Your task to perform on an android device: What's the weather? Image 0: 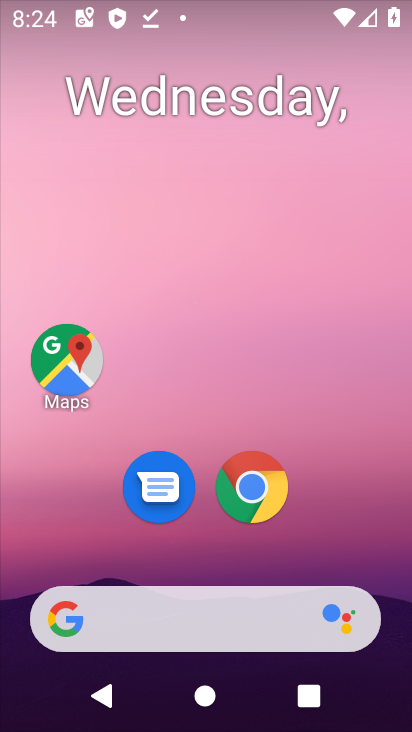
Step 0: drag from (8, 182) to (393, 550)
Your task to perform on an android device: What's the weather? Image 1: 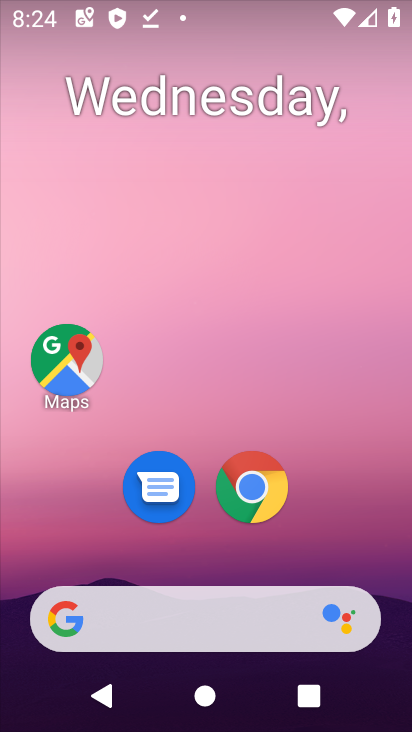
Step 1: drag from (357, 397) to (399, 485)
Your task to perform on an android device: What's the weather? Image 2: 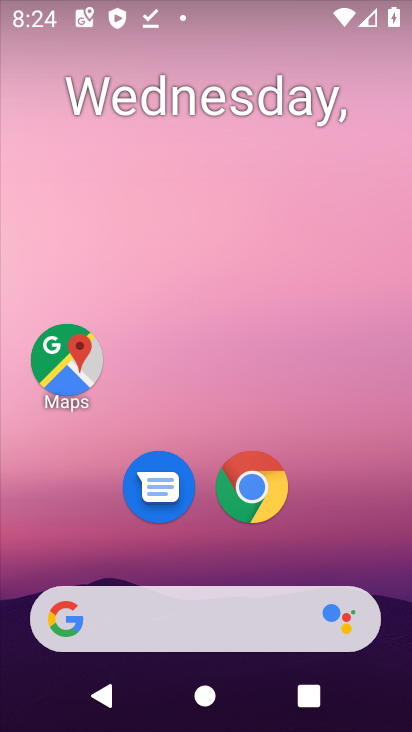
Step 2: drag from (24, 205) to (364, 304)
Your task to perform on an android device: What's the weather? Image 3: 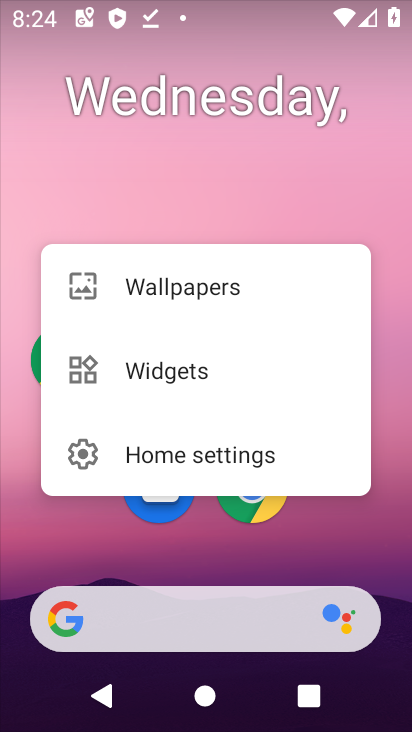
Step 3: drag from (24, 220) to (405, 413)
Your task to perform on an android device: What's the weather? Image 4: 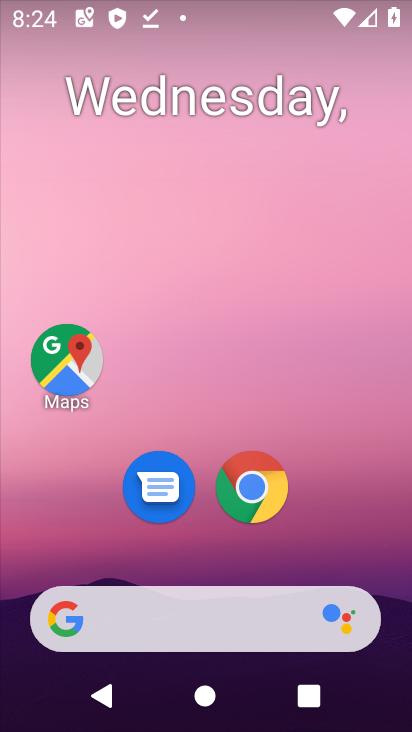
Step 4: click (144, 166)
Your task to perform on an android device: What's the weather? Image 5: 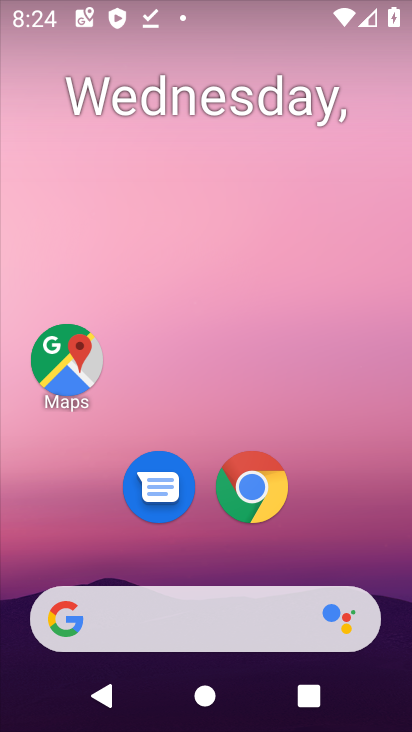
Step 5: drag from (2, 184) to (387, 464)
Your task to perform on an android device: What's the weather? Image 6: 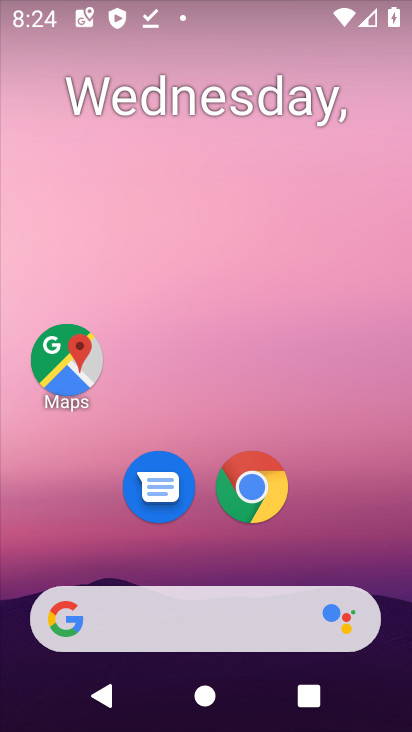
Step 6: drag from (2, 198) to (359, 443)
Your task to perform on an android device: What's the weather? Image 7: 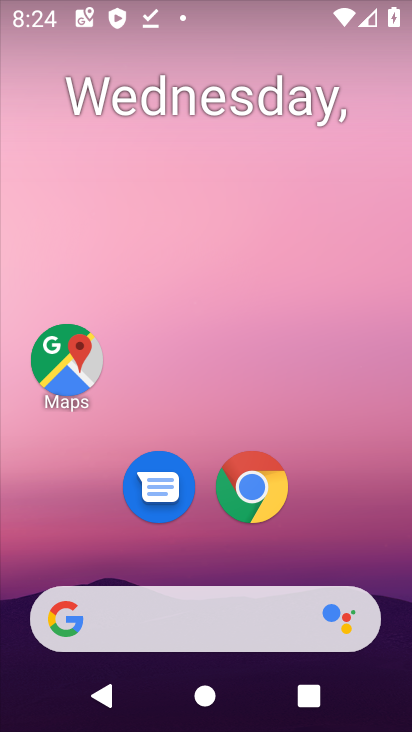
Step 7: drag from (3, 190) to (348, 303)
Your task to perform on an android device: What's the weather? Image 8: 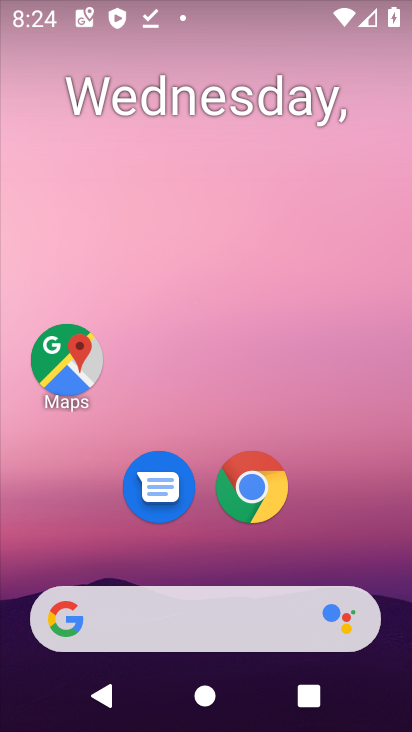
Step 8: drag from (22, 202) to (379, 340)
Your task to perform on an android device: What's the weather? Image 9: 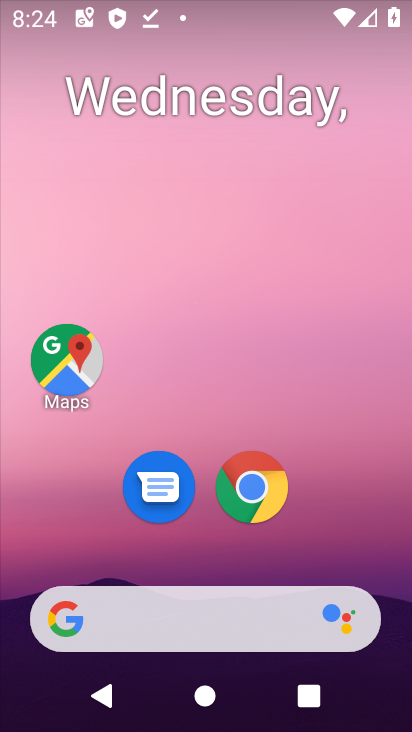
Step 9: drag from (78, 224) to (327, 364)
Your task to perform on an android device: What's the weather? Image 10: 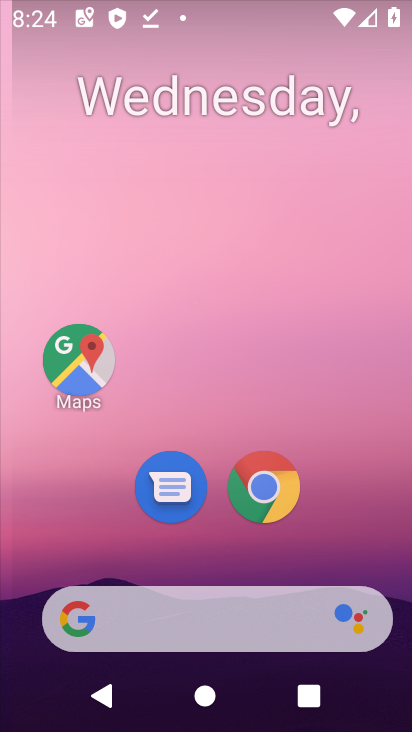
Step 10: drag from (17, 192) to (362, 416)
Your task to perform on an android device: What's the weather? Image 11: 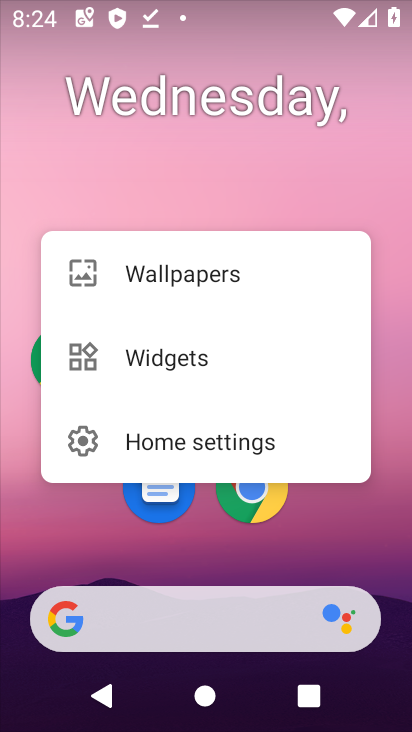
Step 11: drag from (368, 397) to (392, 365)
Your task to perform on an android device: What's the weather? Image 12: 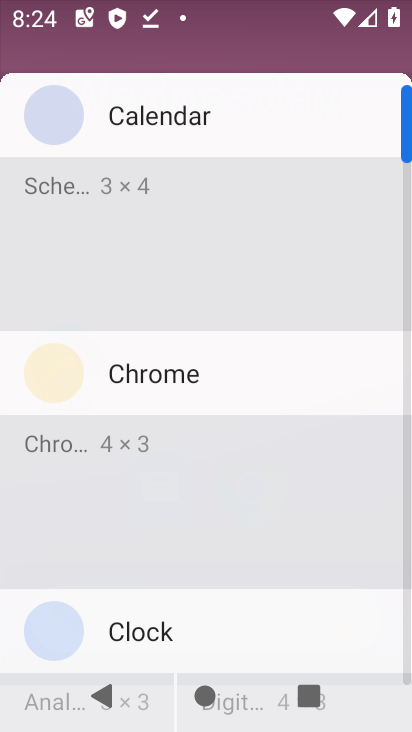
Step 12: click (188, 187)
Your task to perform on an android device: What's the weather? Image 13: 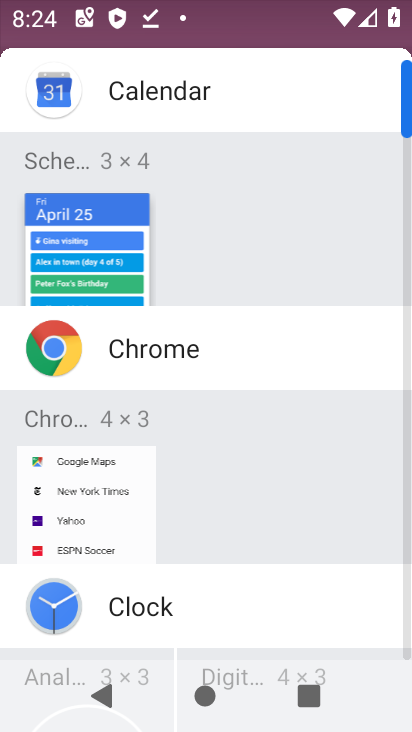
Step 13: press back button
Your task to perform on an android device: What's the weather? Image 14: 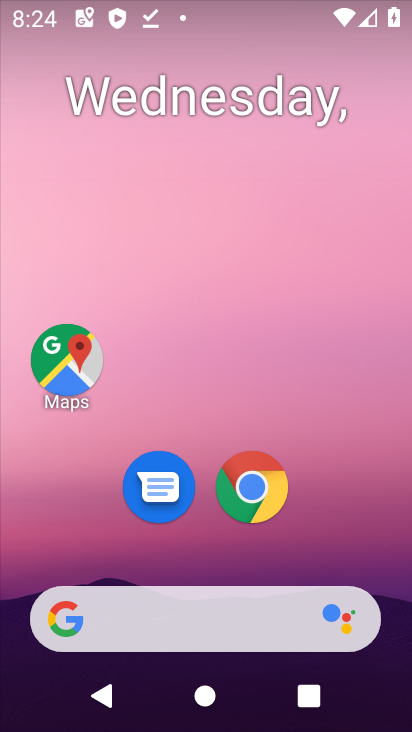
Step 14: drag from (16, 151) to (358, 334)
Your task to perform on an android device: What's the weather? Image 15: 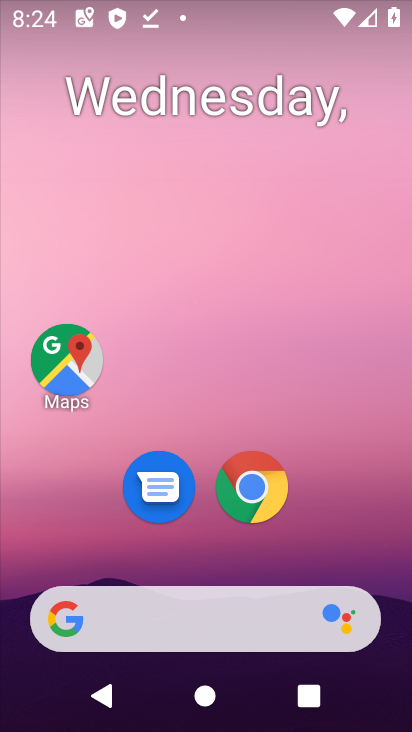
Step 15: drag from (5, 196) to (380, 277)
Your task to perform on an android device: What's the weather? Image 16: 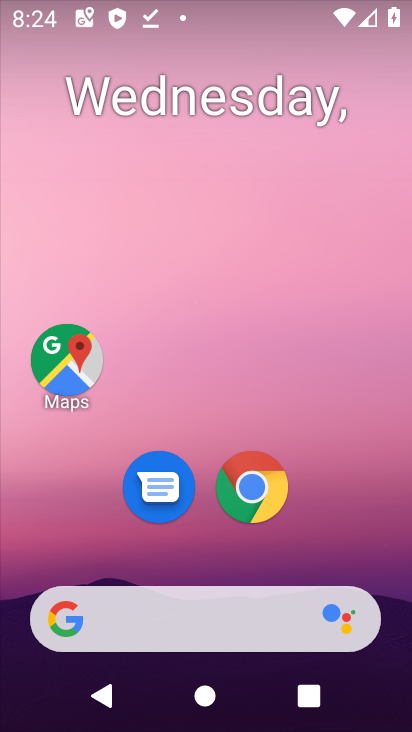
Step 16: drag from (4, 163) to (351, 378)
Your task to perform on an android device: What's the weather? Image 17: 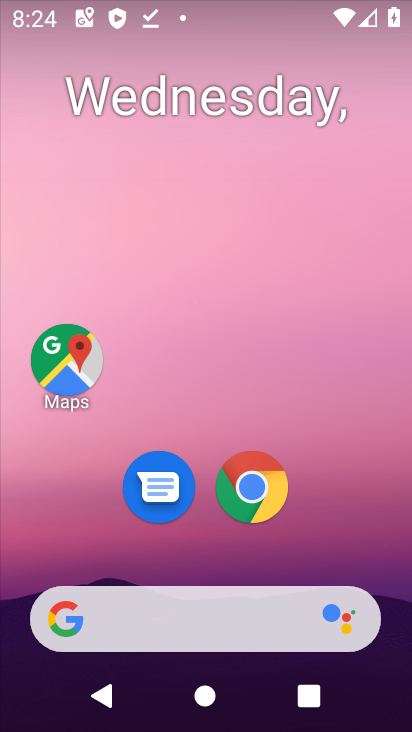
Step 17: drag from (21, 182) to (370, 290)
Your task to perform on an android device: What's the weather? Image 18: 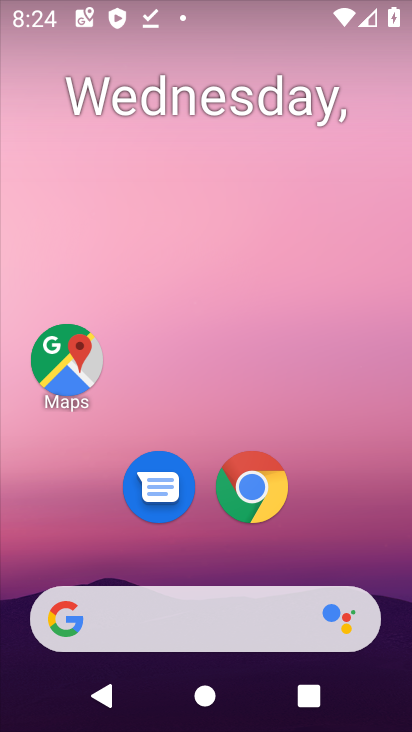
Step 18: drag from (7, 163) to (314, 325)
Your task to perform on an android device: What's the weather? Image 19: 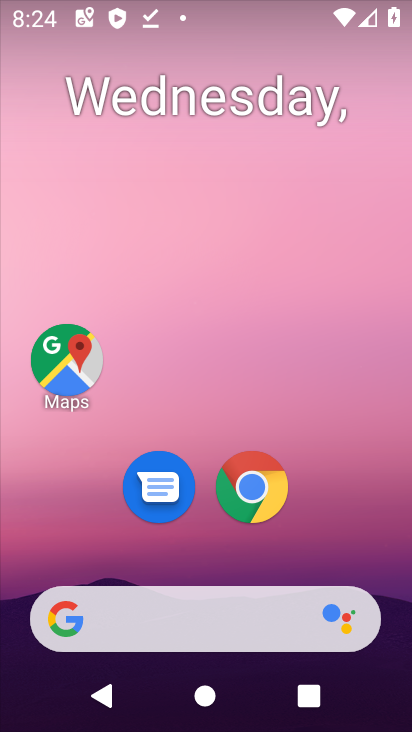
Step 19: drag from (195, 294) to (387, 299)
Your task to perform on an android device: What's the weather? Image 20: 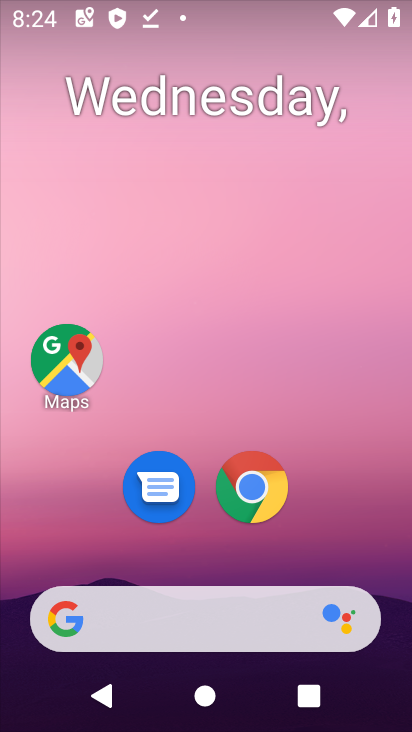
Step 20: drag from (197, 347) to (305, 368)
Your task to perform on an android device: What's the weather? Image 21: 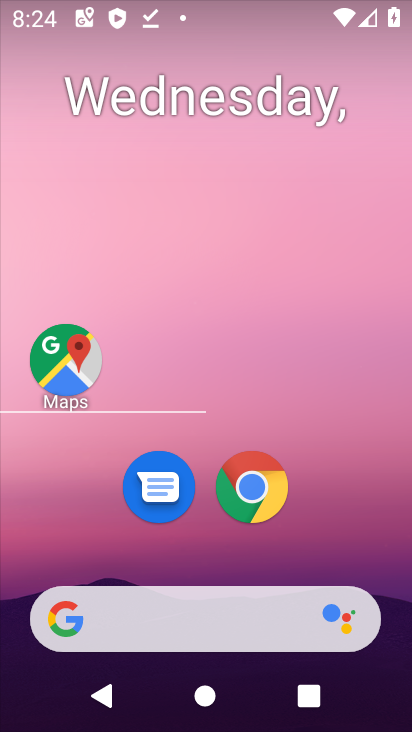
Step 21: drag from (5, 167) to (404, 389)
Your task to perform on an android device: What's the weather? Image 22: 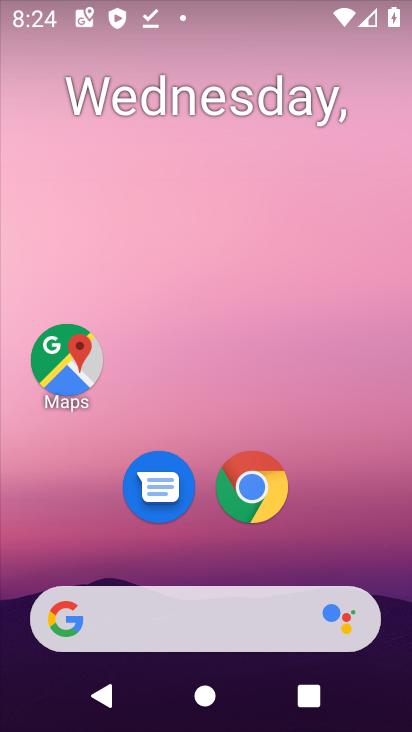
Step 22: drag from (0, 226) to (404, 391)
Your task to perform on an android device: What's the weather? Image 23: 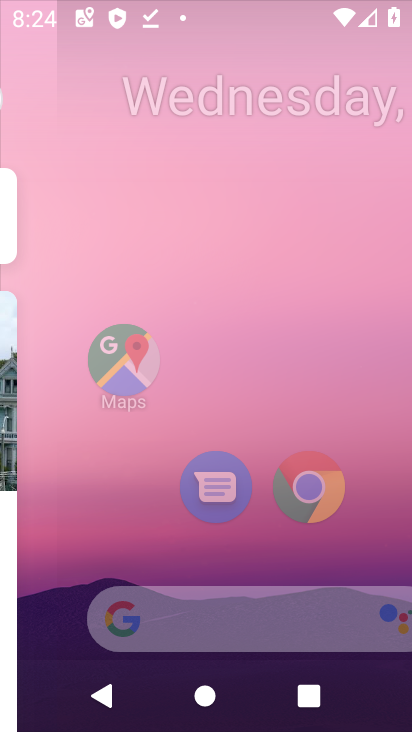
Step 23: drag from (26, 191) to (363, 323)
Your task to perform on an android device: What's the weather? Image 24: 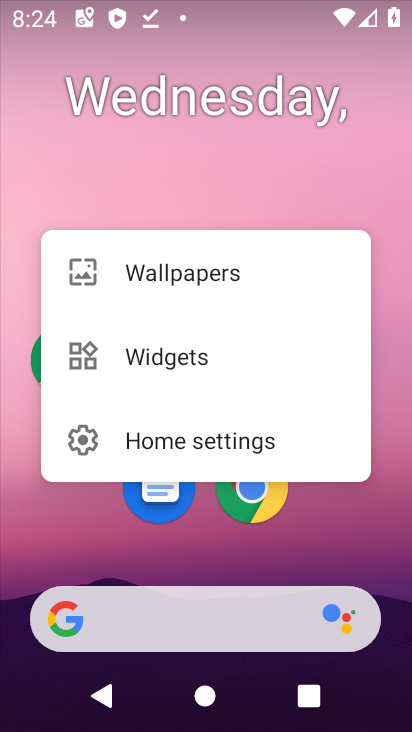
Step 24: drag from (19, 220) to (372, 280)
Your task to perform on an android device: What's the weather? Image 25: 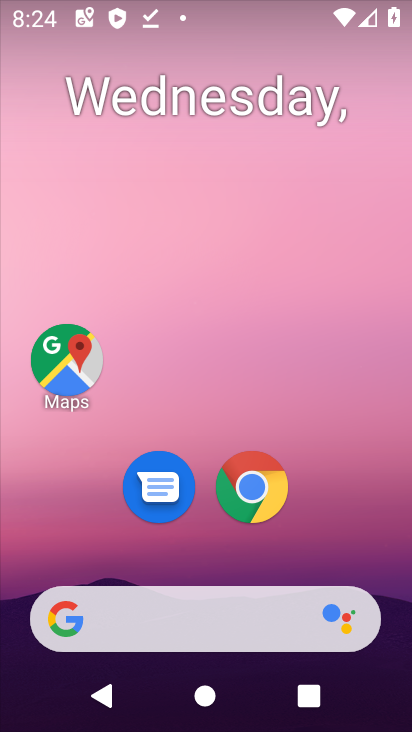
Step 25: click (220, 147)
Your task to perform on an android device: What's the weather? Image 26: 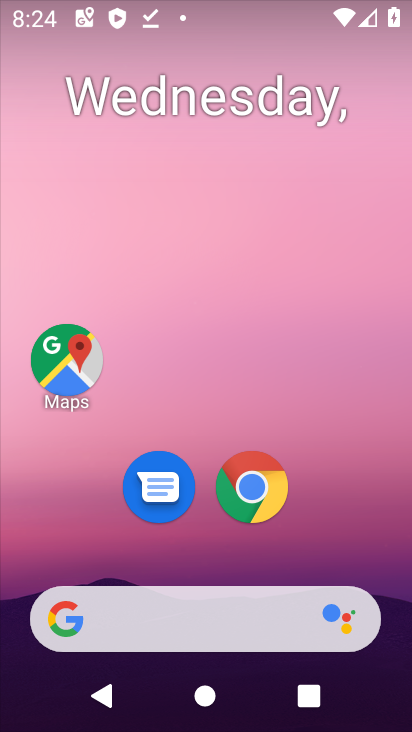
Step 26: click (220, 147)
Your task to perform on an android device: What's the weather? Image 27: 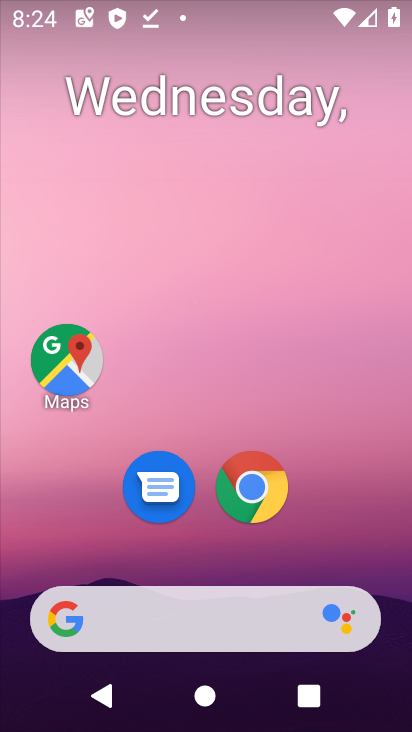
Step 27: drag from (11, 194) to (394, 295)
Your task to perform on an android device: What's the weather? Image 28: 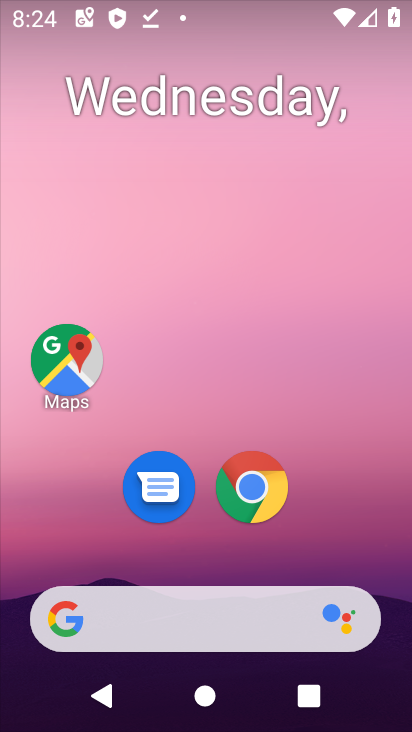
Step 28: drag from (2, 152) to (402, 455)
Your task to perform on an android device: What's the weather? Image 29: 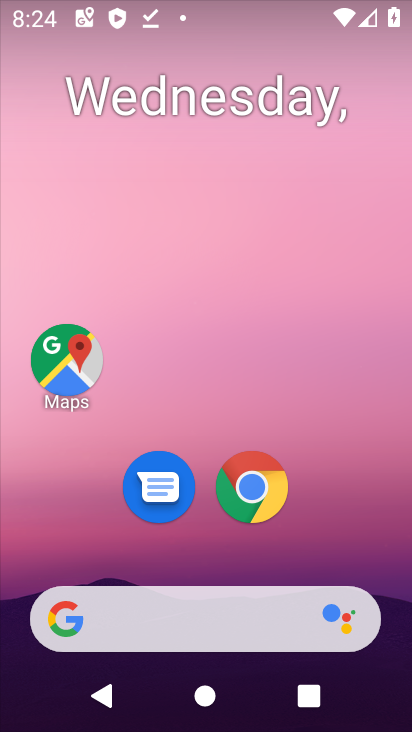
Step 29: drag from (240, 329) to (346, 416)
Your task to perform on an android device: What's the weather? Image 30: 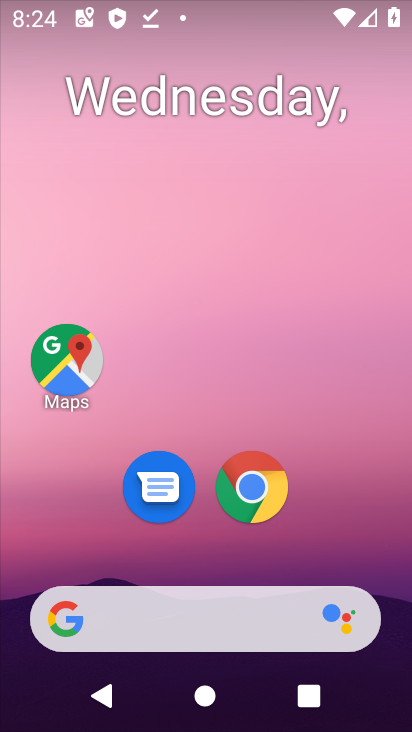
Step 30: drag from (0, 157) to (404, 441)
Your task to perform on an android device: What's the weather? Image 31: 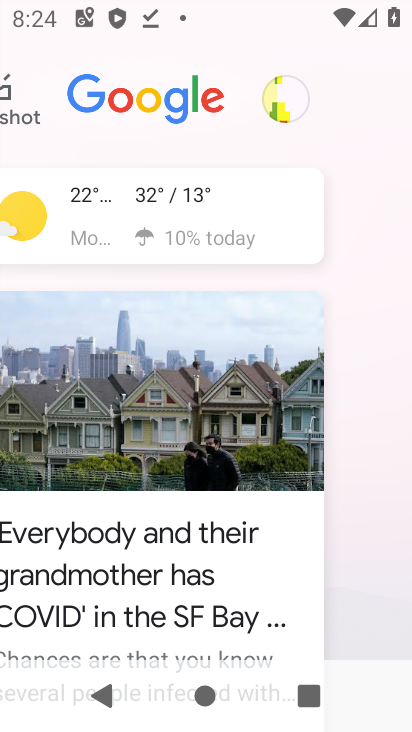
Step 31: drag from (27, 161) to (368, 691)
Your task to perform on an android device: What's the weather? Image 32: 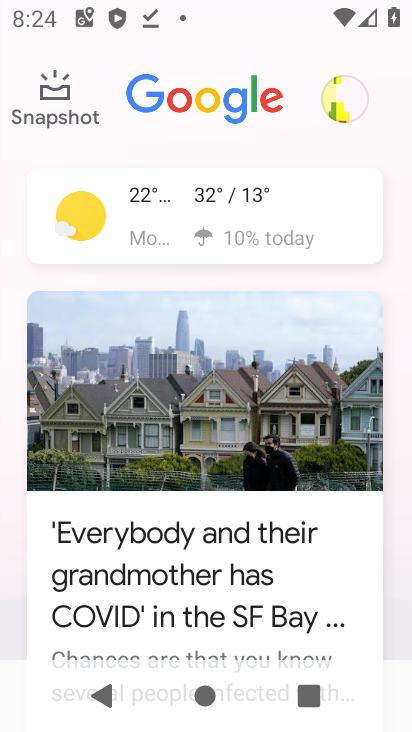
Step 32: click (195, 204)
Your task to perform on an android device: What's the weather? Image 33: 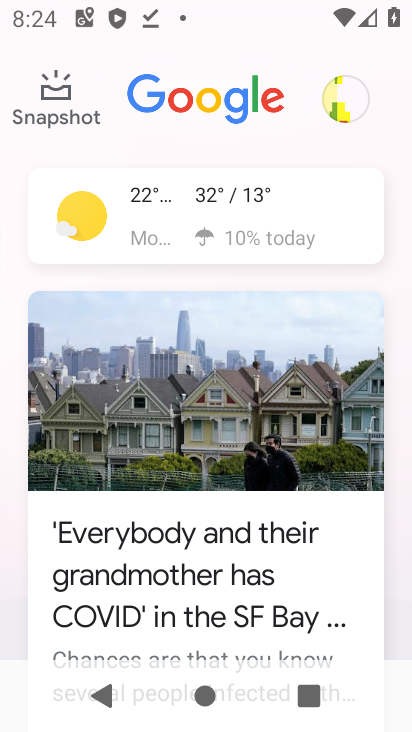
Step 33: click (197, 203)
Your task to perform on an android device: What's the weather? Image 34: 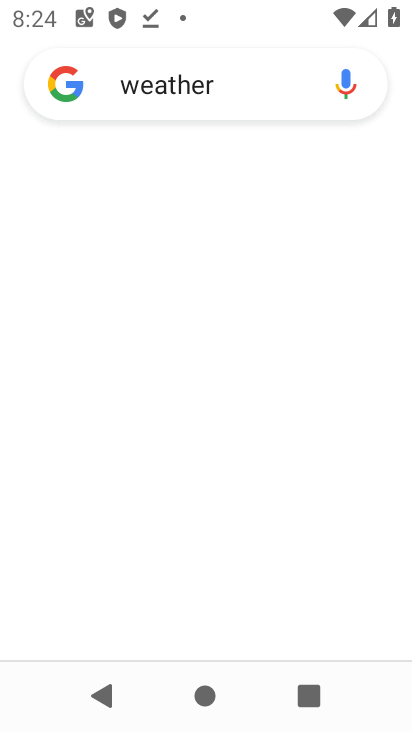
Step 34: click (216, 193)
Your task to perform on an android device: What's the weather? Image 35: 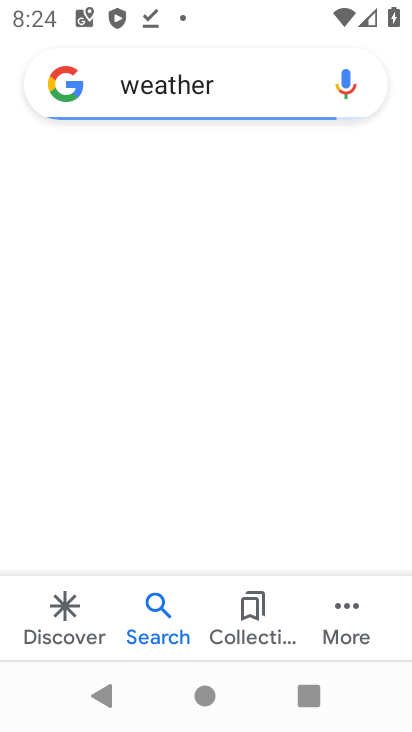
Step 35: task complete